Your task to perform on an android device: Open network settings Image 0: 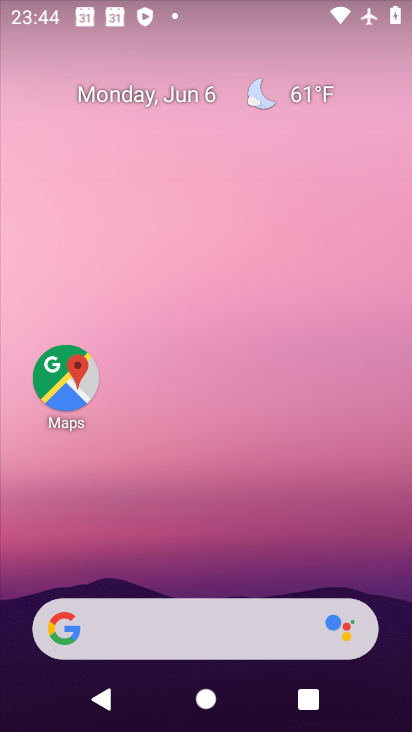
Step 0: drag from (212, 558) to (244, 70)
Your task to perform on an android device: Open network settings Image 1: 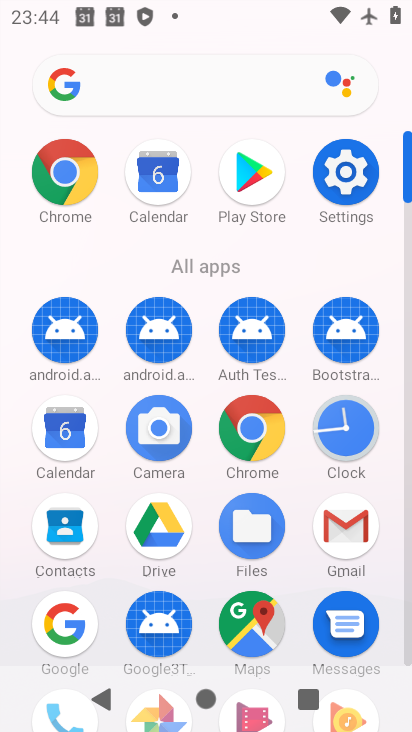
Step 1: click (345, 177)
Your task to perform on an android device: Open network settings Image 2: 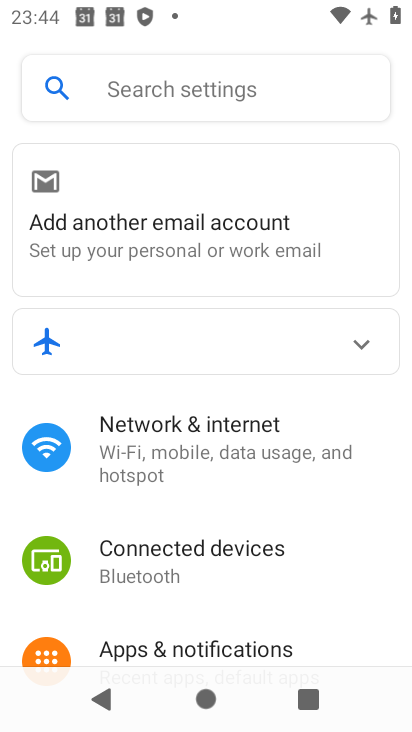
Step 2: click (205, 423)
Your task to perform on an android device: Open network settings Image 3: 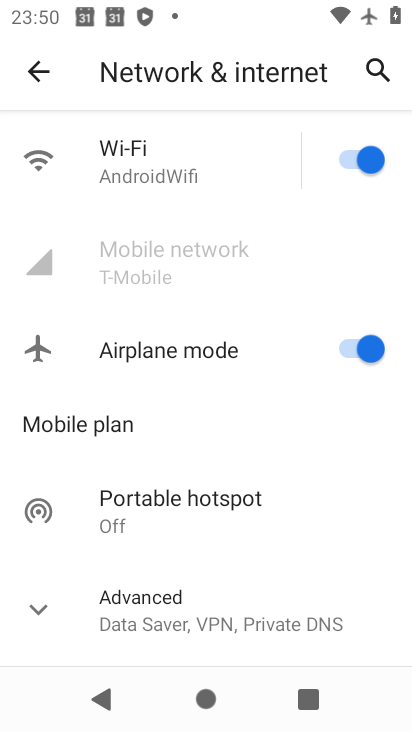
Step 3: task complete